Your task to perform on an android device: toggle notification dots Image 0: 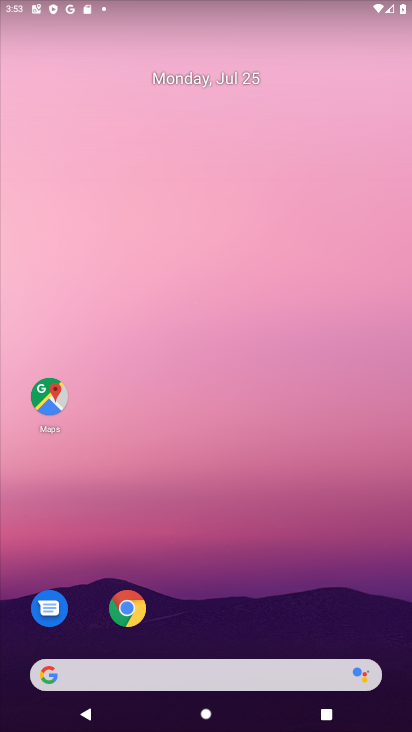
Step 0: press home button
Your task to perform on an android device: toggle notification dots Image 1: 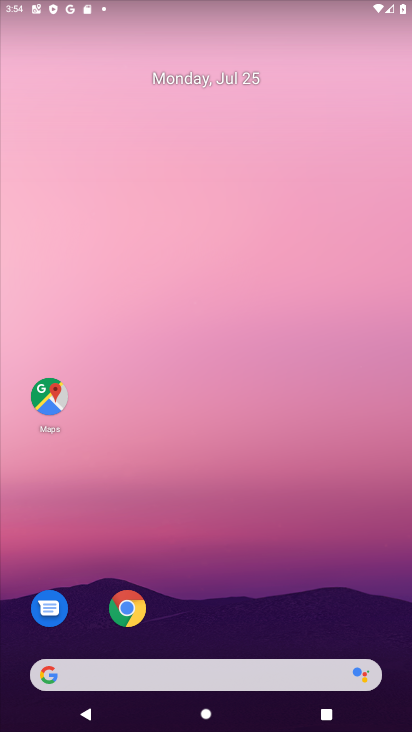
Step 1: drag from (209, 637) to (276, 62)
Your task to perform on an android device: toggle notification dots Image 2: 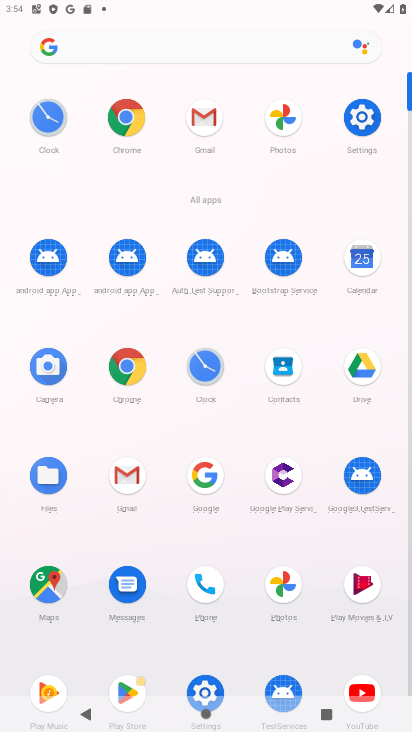
Step 2: click (361, 112)
Your task to perform on an android device: toggle notification dots Image 3: 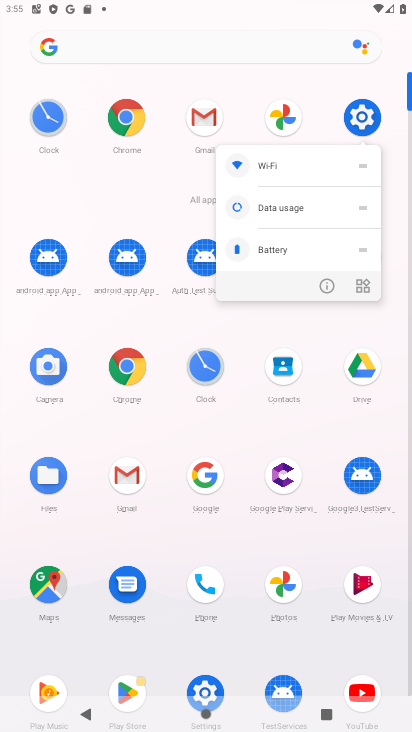
Step 3: click (359, 114)
Your task to perform on an android device: toggle notification dots Image 4: 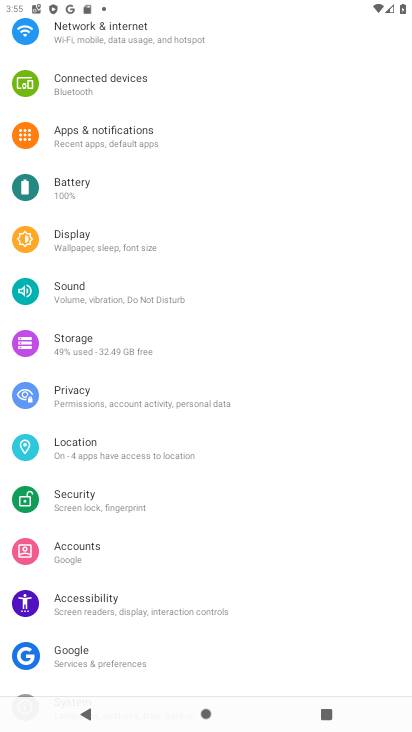
Step 4: click (176, 136)
Your task to perform on an android device: toggle notification dots Image 5: 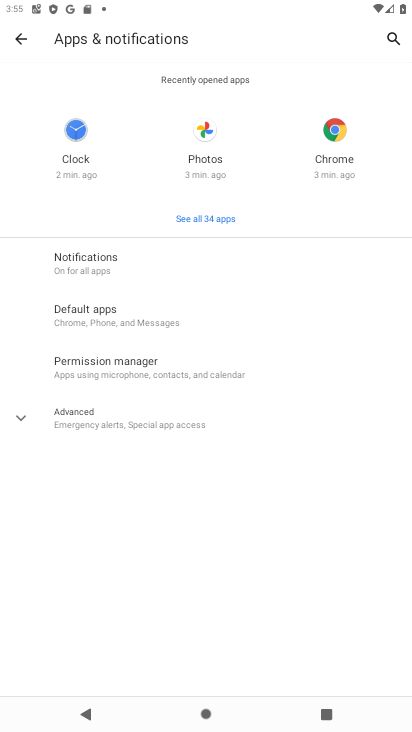
Step 5: click (134, 261)
Your task to perform on an android device: toggle notification dots Image 6: 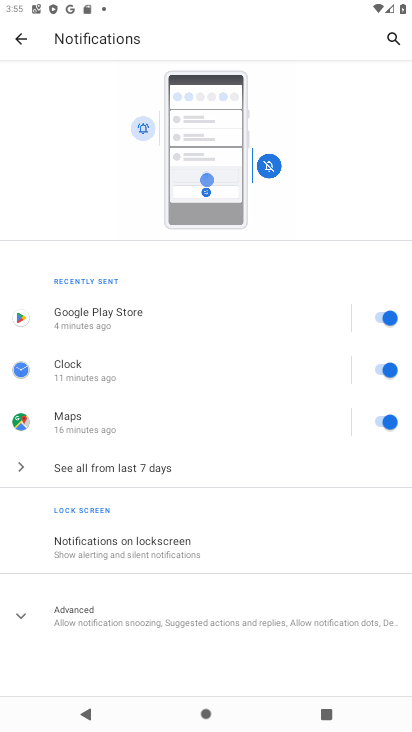
Step 6: click (25, 612)
Your task to perform on an android device: toggle notification dots Image 7: 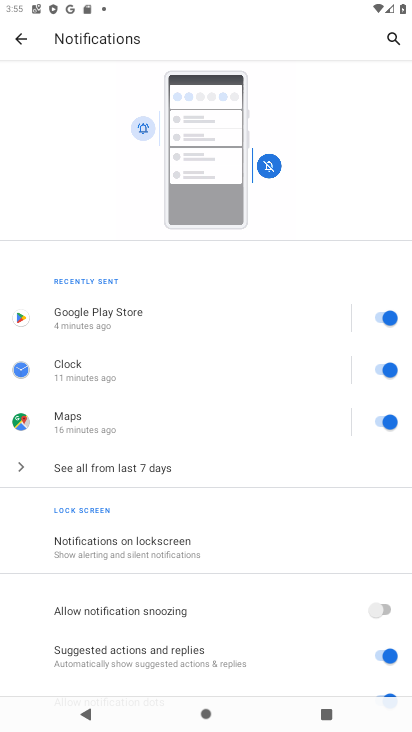
Step 7: drag from (244, 653) to (265, 162)
Your task to perform on an android device: toggle notification dots Image 8: 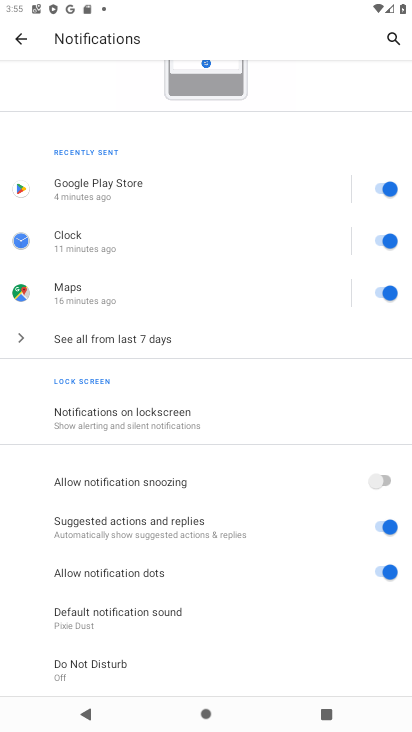
Step 8: click (380, 569)
Your task to perform on an android device: toggle notification dots Image 9: 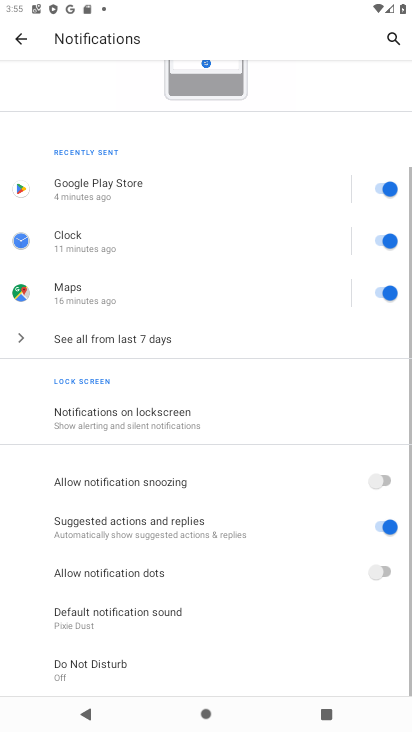
Step 9: task complete